Your task to perform on an android device: change keyboard looks Image 0: 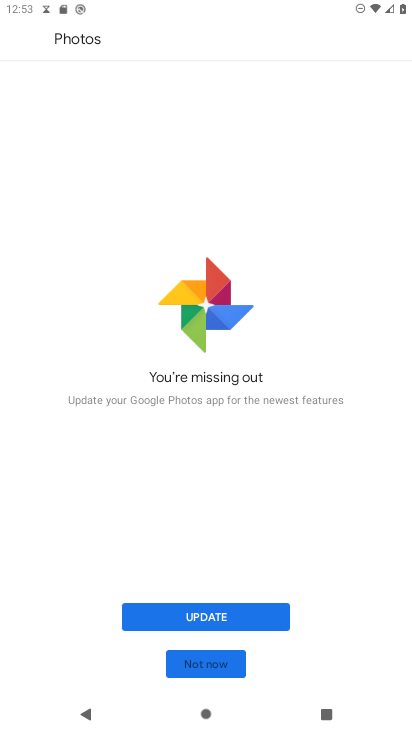
Step 0: press home button
Your task to perform on an android device: change keyboard looks Image 1: 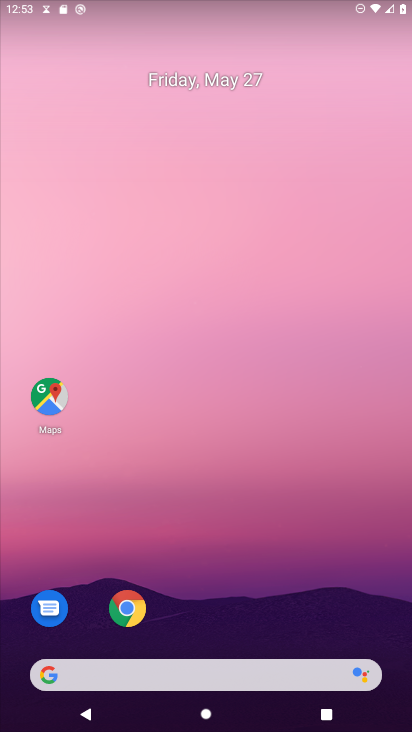
Step 1: drag from (127, 674) to (278, 128)
Your task to perform on an android device: change keyboard looks Image 2: 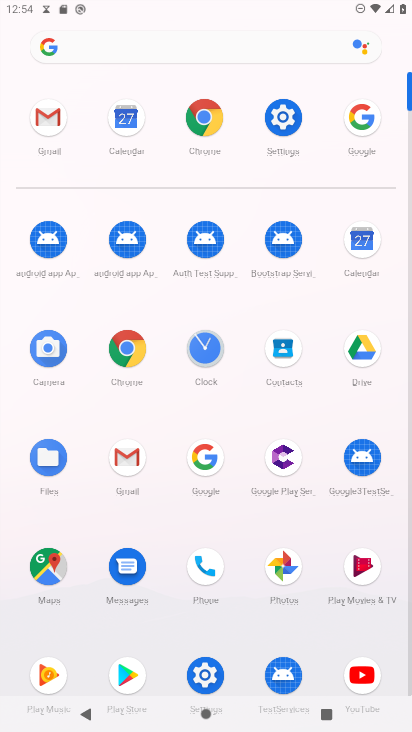
Step 2: click (279, 126)
Your task to perform on an android device: change keyboard looks Image 3: 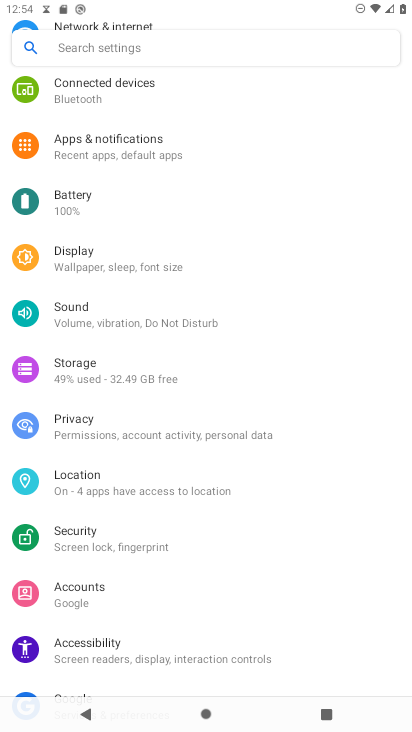
Step 3: drag from (266, 632) to (390, 27)
Your task to perform on an android device: change keyboard looks Image 4: 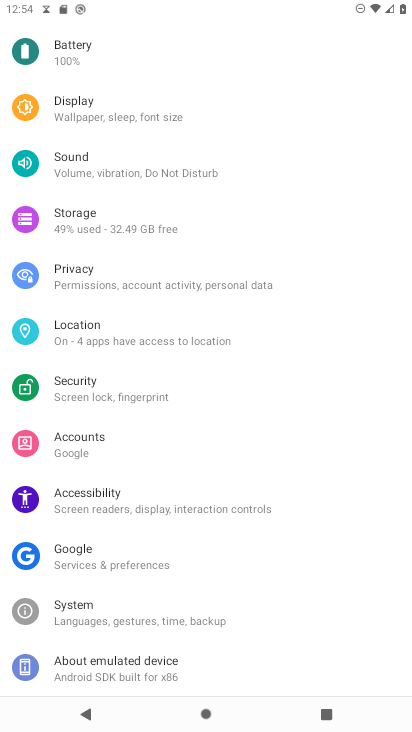
Step 4: click (115, 608)
Your task to perform on an android device: change keyboard looks Image 5: 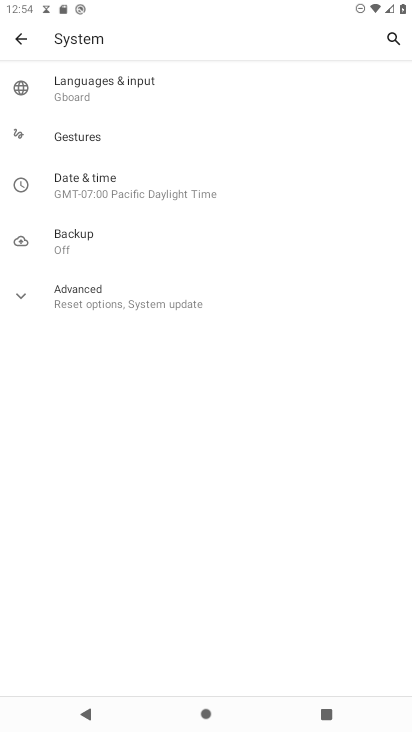
Step 5: click (104, 90)
Your task to perform on an android device: change keyboard looks Image 6: 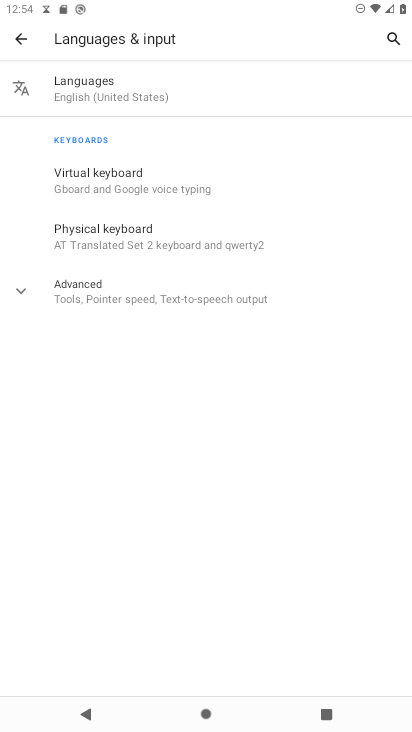
Step 6: click (118, 185)
Your task to perform on an android device: change keyboard looks Image 7: 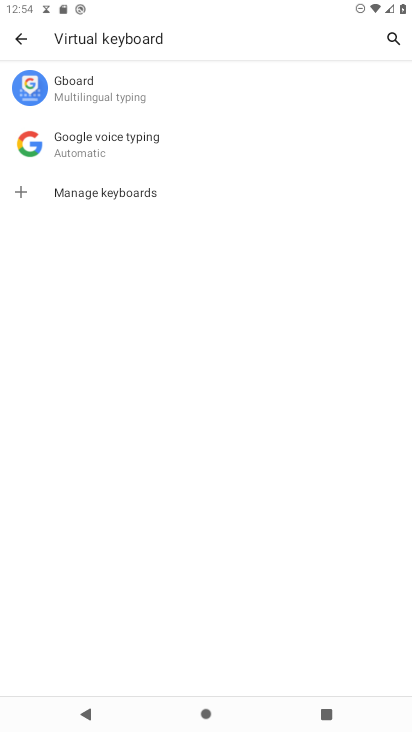
Step 7: click (118, 86)
Your task to perform on an android device: change keyboard looks Image 8: 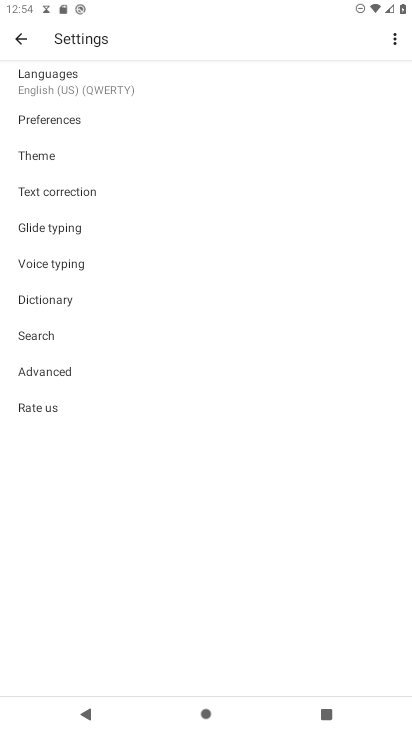
Step 8: click (55, 149)
Your task to perform on an android device: change keyboard looks Image 9: 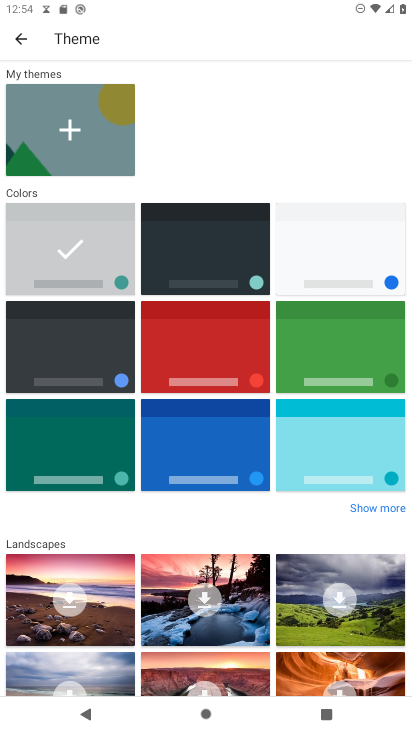
Step 9: click (235, 346)
Your task to perform on an android device: change keyboard looks Image 10: 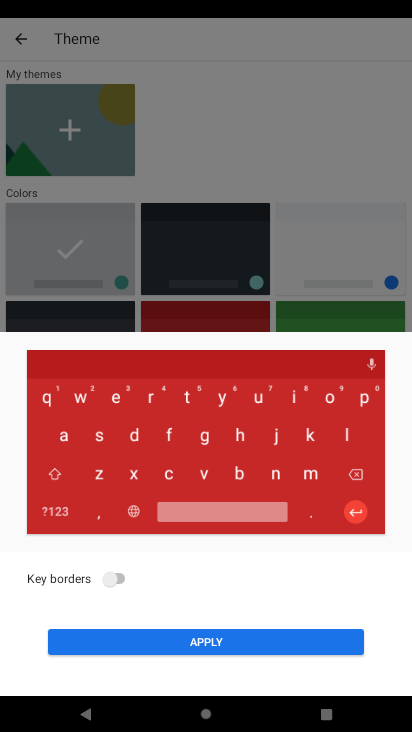
Step 10: click (205, 641)
Your task to perform on an android device: change keyboard looks Image 11: 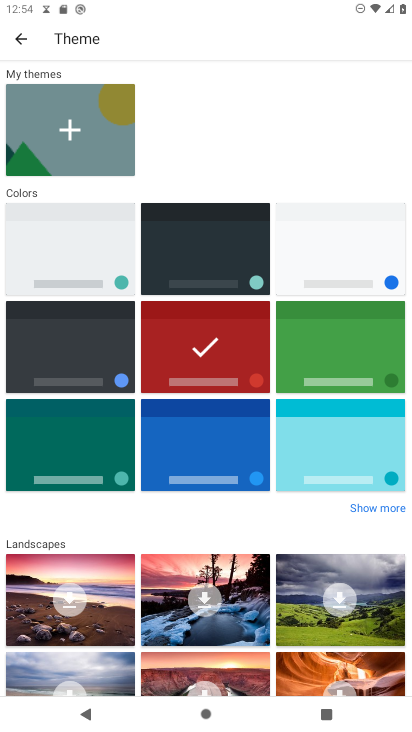
Step 11: task complete